Your task to perform on an android device: Go to privacy settings Image 0: 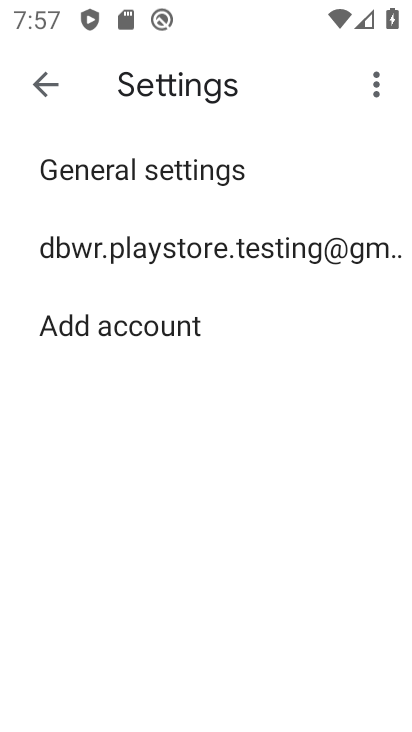
Step 0: press home button
Your task to perform on an android device: Go to privacy settings Image 1: 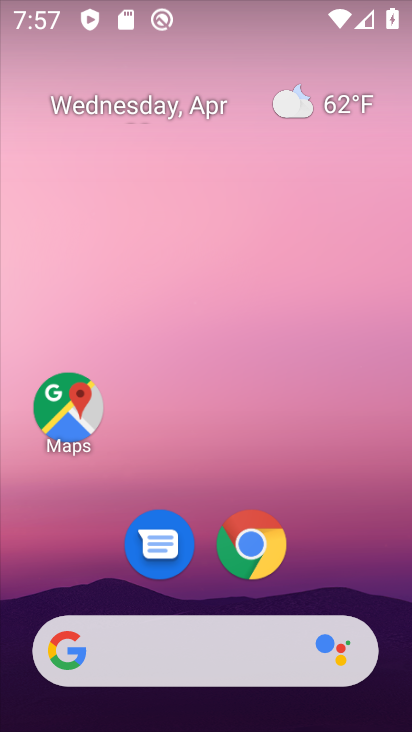
Step 1: click (265, 539)
Your task to perform on an android device: Go to privacy settings Image 2: 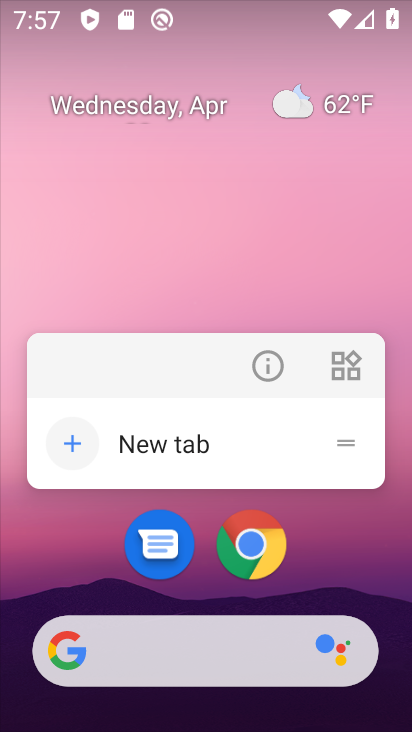
Step 2: click (243, 519)
Your task to perform on an android device: Go to privacy settings Image 3: 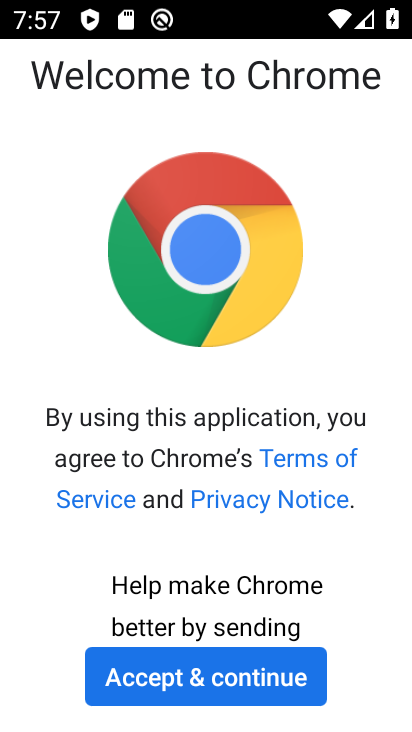
Step 3: click (264, 661)
Your task to perform on an android device: Go to privacy settings Image 4: 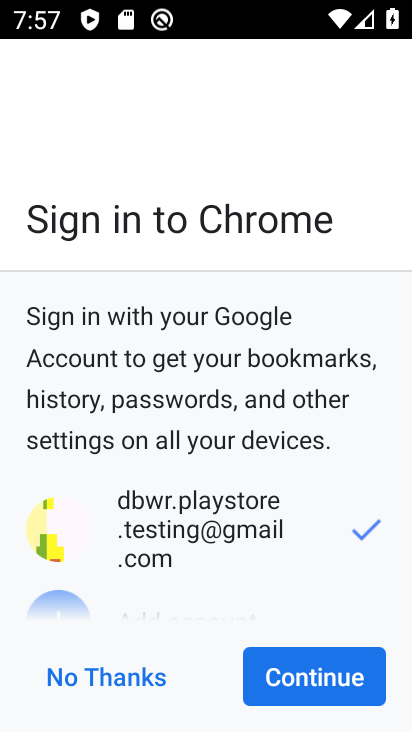
Step 4: click (311, 674)
Your task to perform on an android device: Go to privacy settings Image 5: 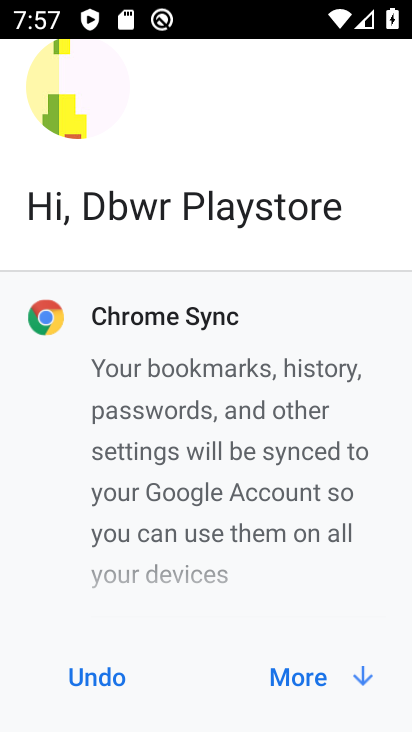
Step 5: click (304, 673)
Your task to perform on an android device: Go to privacy settings Image 6: 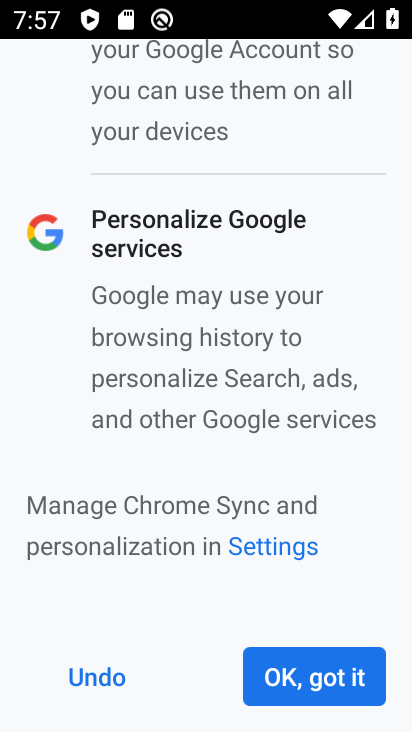
Step 6: click (281, 683)
Your task to perform on an android device: Go to privacy settings Image 7: 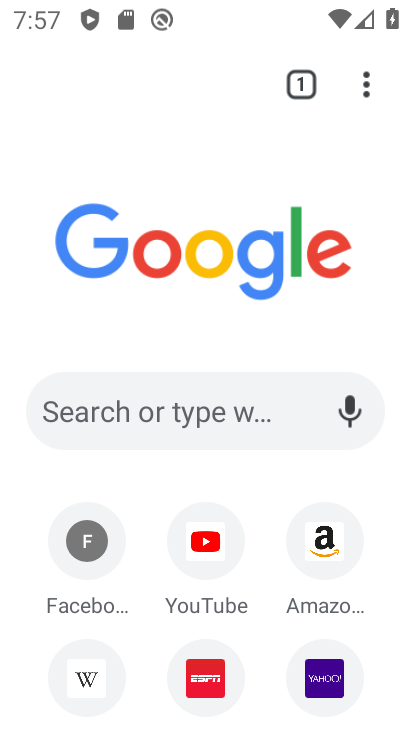
Step 7: drag from (368, 82) to (122, 593)
Your task to perform on an android device: Go to privacy settings Image 8: 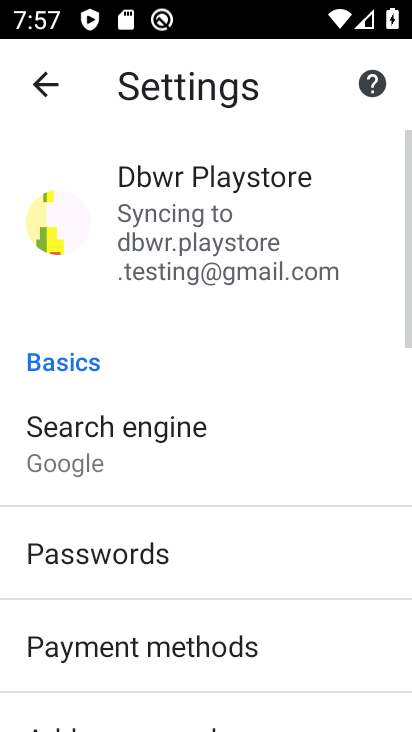
Step 8: drag from (140, 592) to (248, 105)
Your task to perform on an android device: Go to privacy settings Image 9: 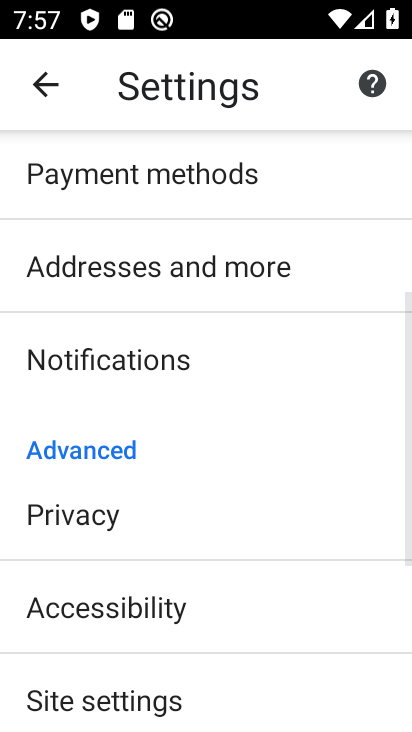
Step 9: click (73, 517)
Your task to perform on an android device: Go to privacy settings Image 10: 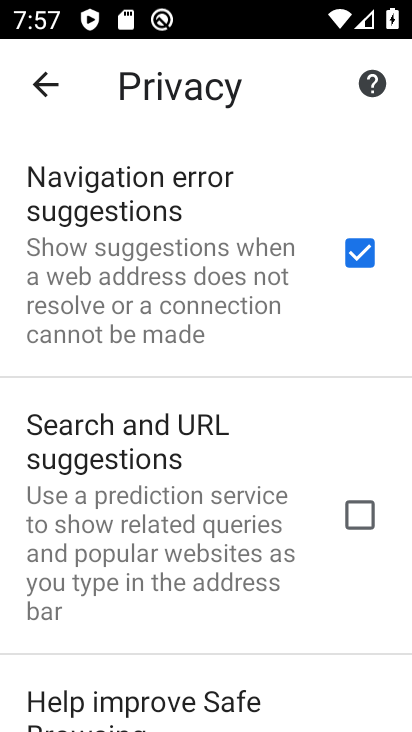
Step 10: task complete